Your task to perform on an android device: Open Google Maps and go to "Timeline" Image 0: 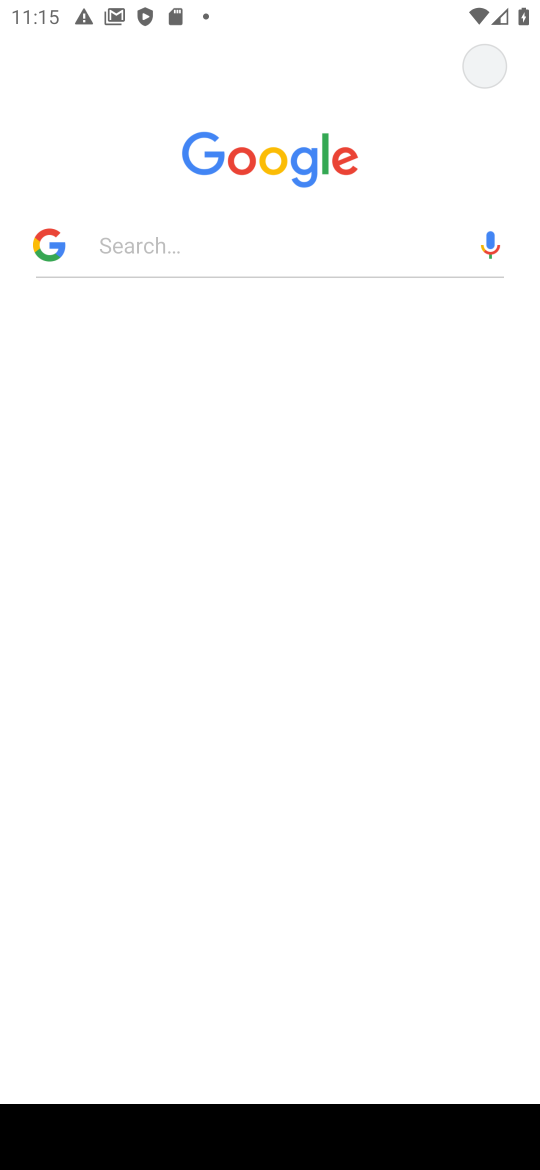
Step 0: press home button
Your task to perform on an android device: Open Google Maps and go to "Timeline" Image 1: 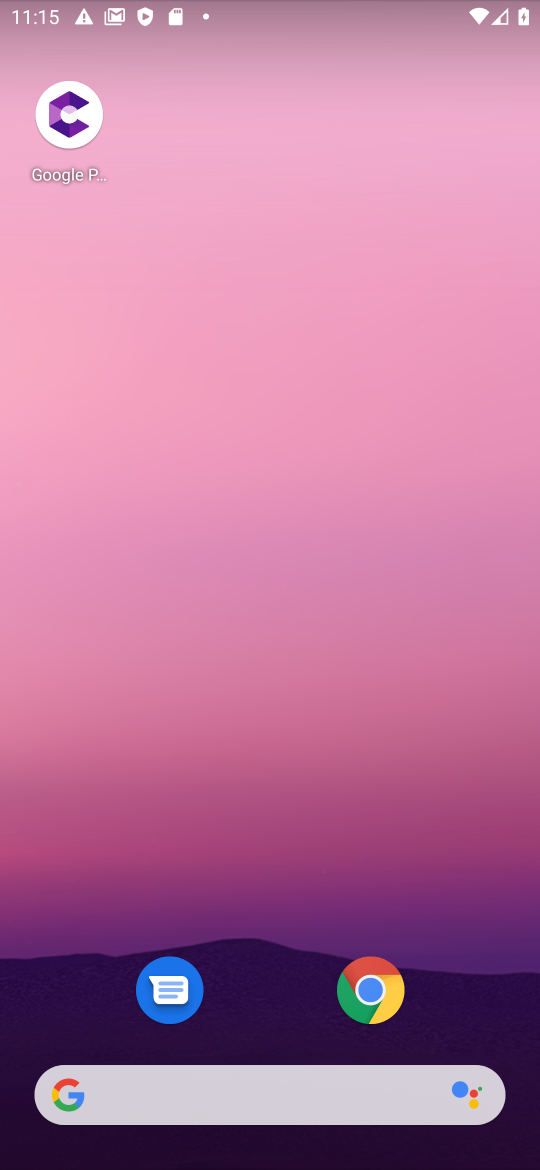
Step 1: drag from (277, 994) to (263, 93)
Your task to perform on an android device: Open Google Maps and go to "Timeline" Image 2: 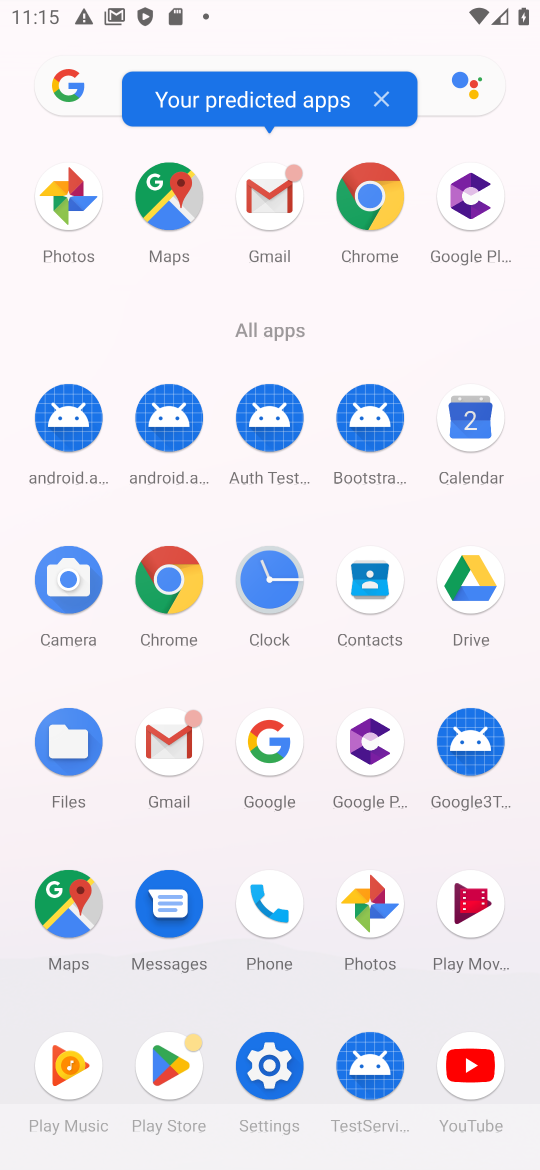
Step 2: click (67, 924)
Your task to perform on an android device: Open Google Maps and go to "Timeline" Image 3: 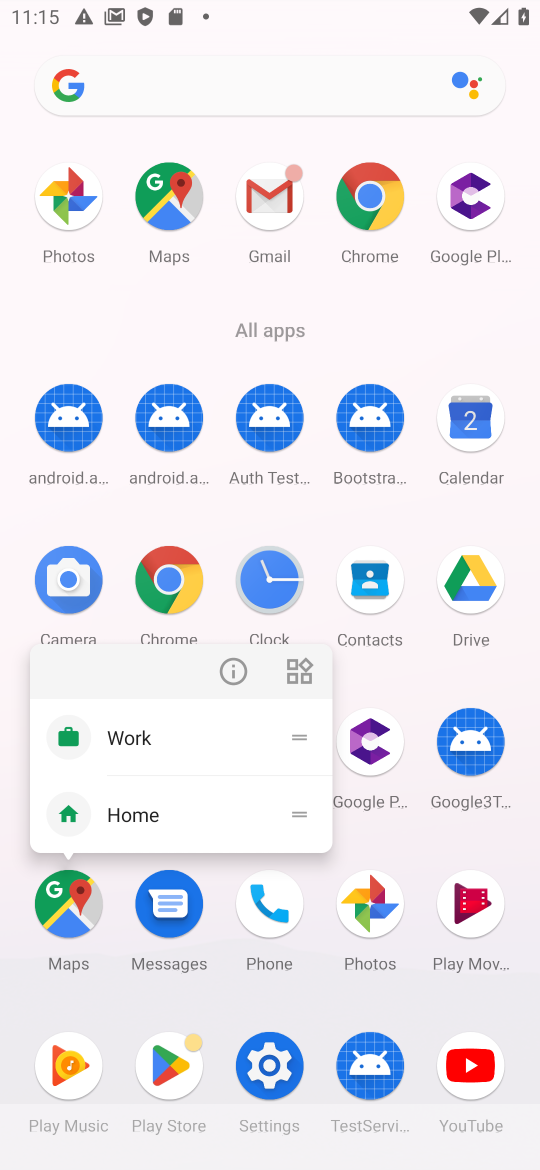
Step 3: click (75, 915)
Your task to perform on an android device: Open Google Maps and go to "Timeline" Image 4: 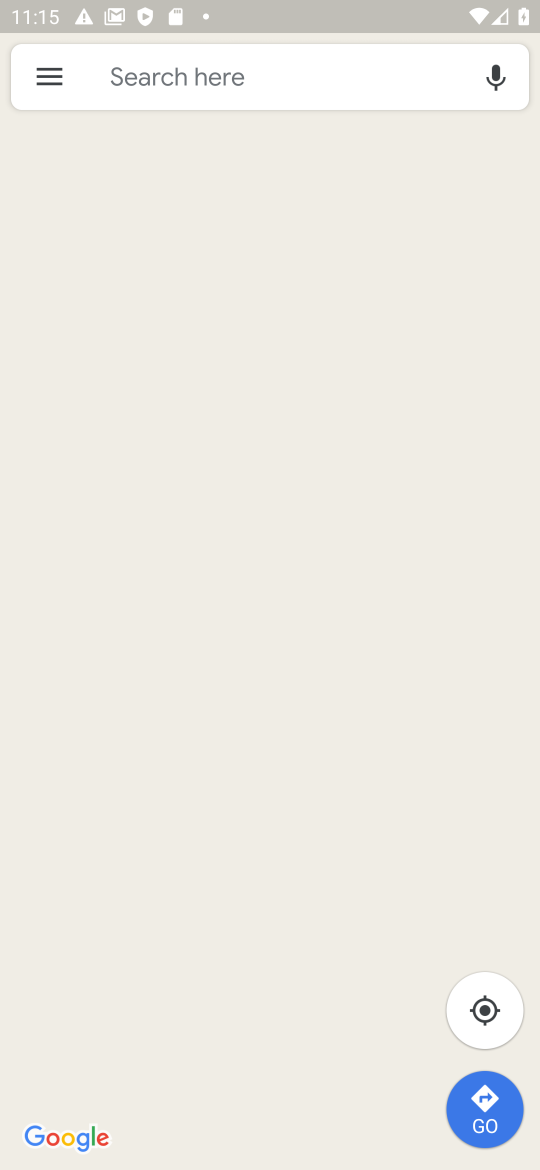
Step 4: click (33, 52)
Your task to perform on an android device: Open Google Maps and go to "Timeline" Image 5: 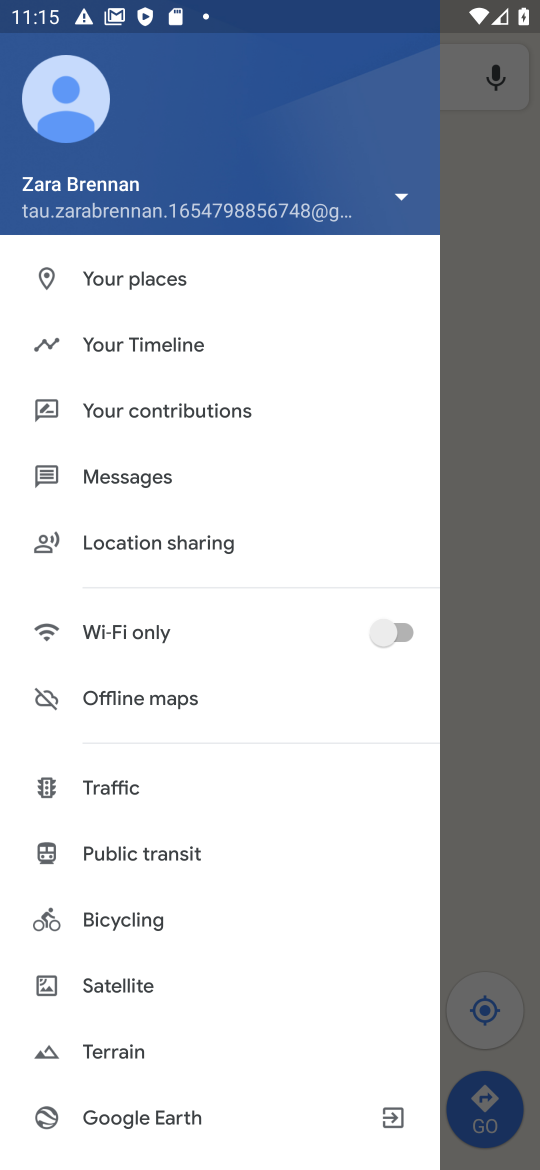
Step 5: click (126, 344)
Your task to perform on an android device: Open Google Maps and go to "Timeline" Image 6: 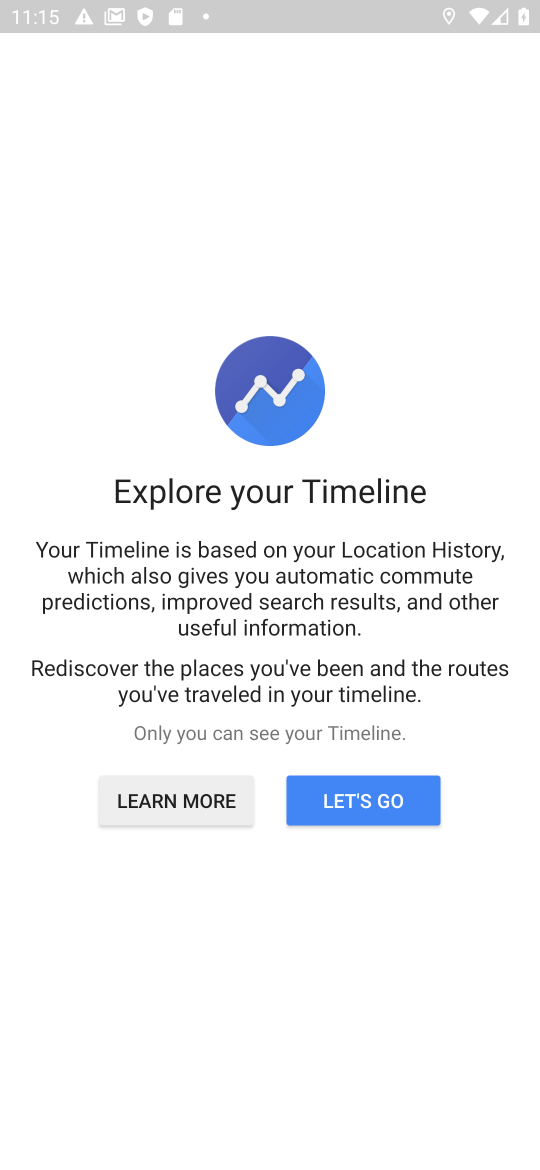
Step 6: click (389, 791)
Your task to perform on an android device: Open Google Maps and go to "Timeline" Image 7: 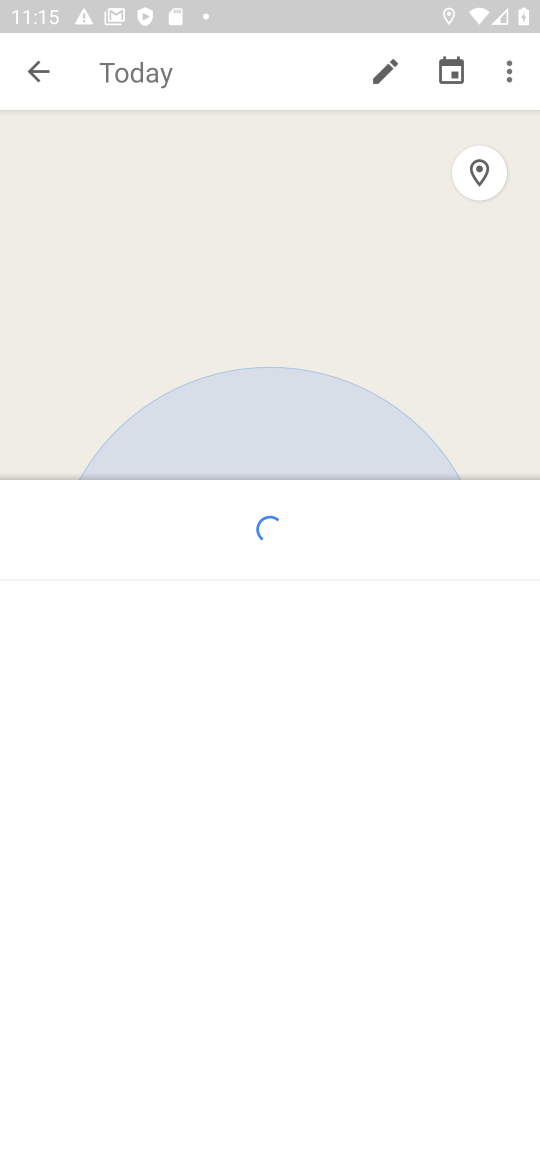
Step 7: task complete